Your task to perform on an android device: delete location history Image 0: 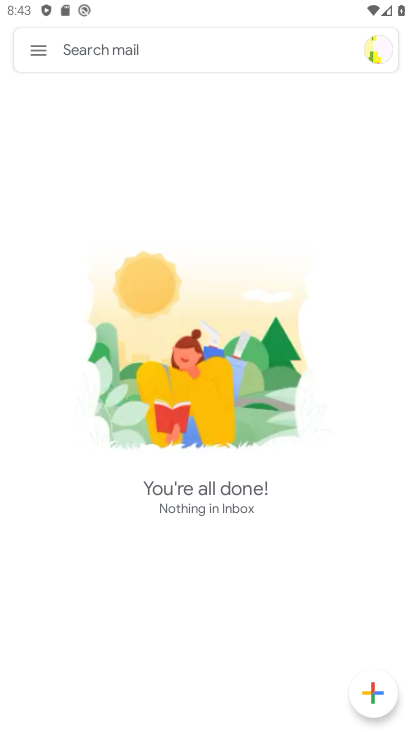
Step 0: press home button
Your task to perform on an android device: delete location history Image 1: 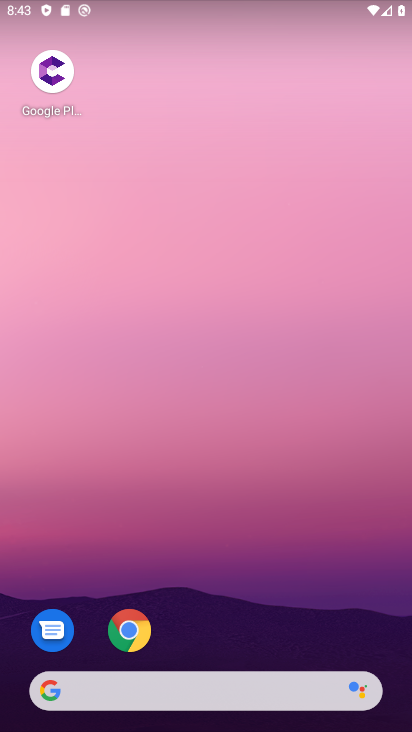
Step 1: drag from (296, 524) to (308, 128)
Your task to perform on an android device: delete location history Image 2: 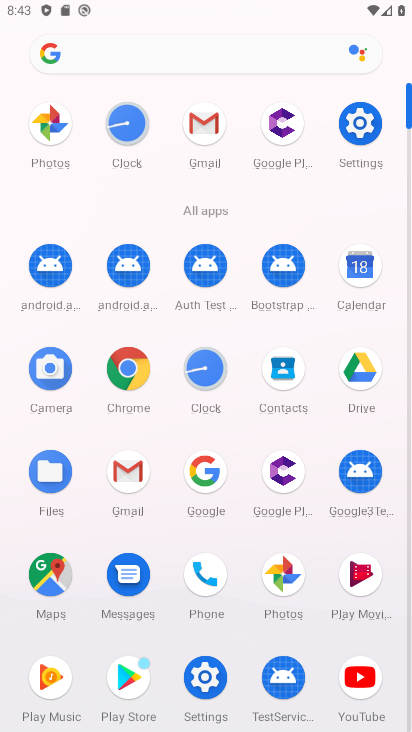
Step 2: click (48, 575)
Your task to perform on an android device: delete location history Image 3: 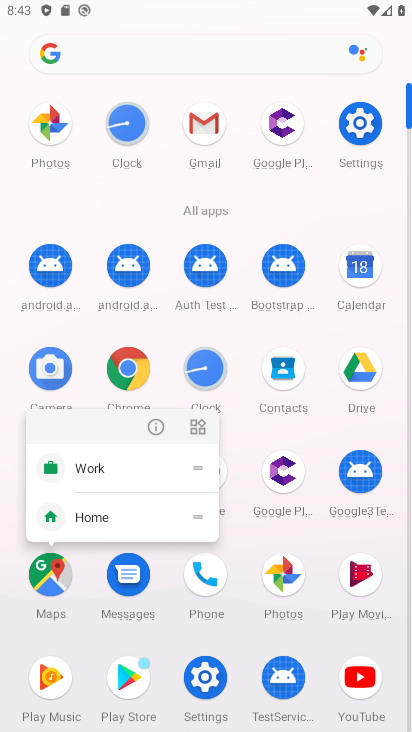
Step 3: click (45, 577)
Your task to perform on an android device: delete location history Image 4: 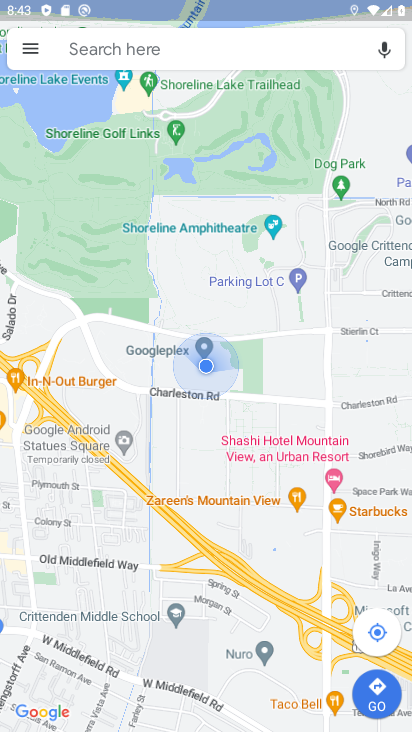
Step 4: click (34, 43)
Your task to perform on an android device: delete location history Image 5: 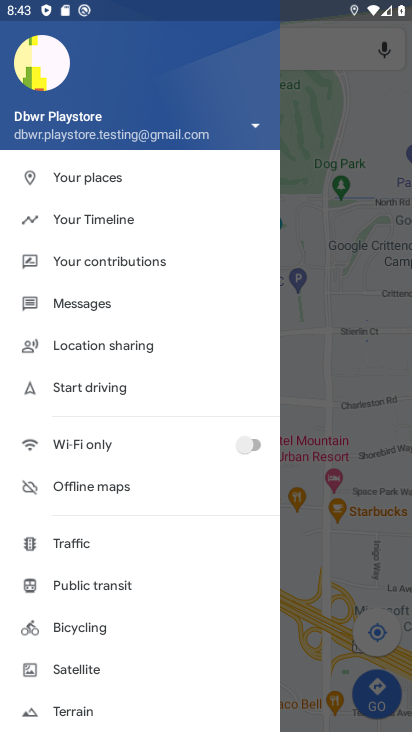
Step 5: drag from (16, 241) to (12, 141)
Your task to perform on an android device: delete location history Image 6: 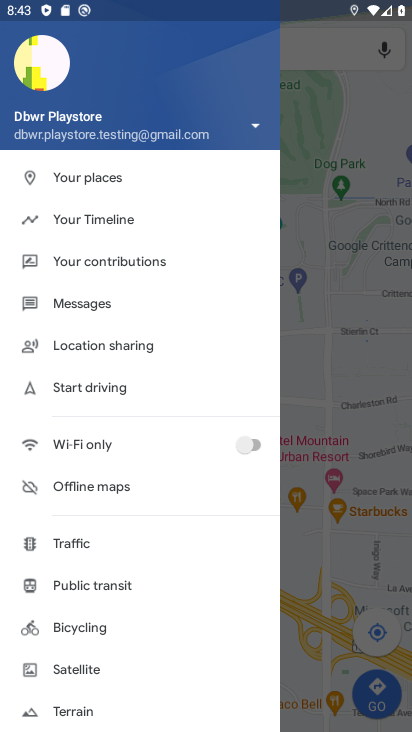
Step 6: drag from (69, 631) to (80, 141)
Your task to perform on an android device: delete location history Image 7: 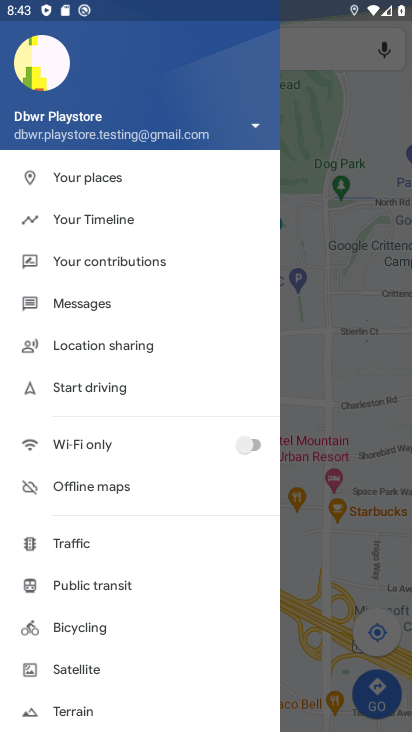
Step 7: drag from (83, 645) to (115, 144)
Your task to perform on an android device: delete location history Image 8: 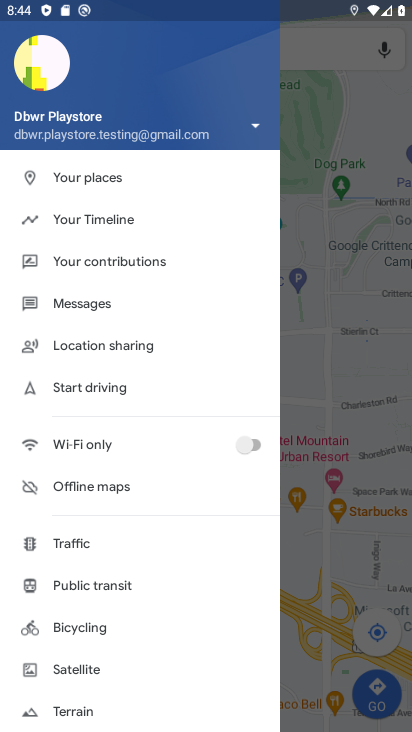
Step 8: drag from (108, 498) to (201, 138)
Your task to perform on an android device: delete location history Image 9: 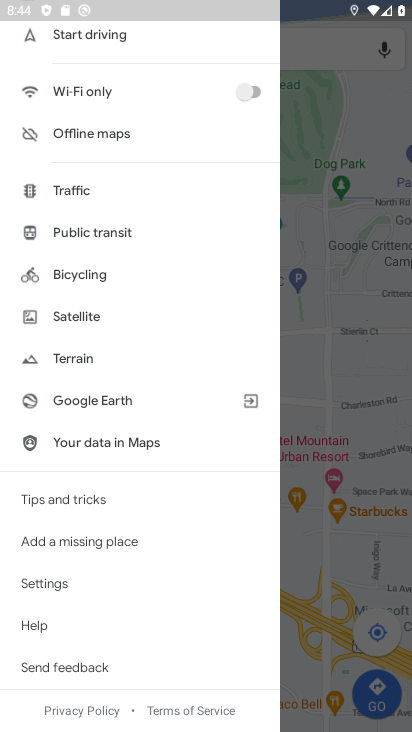
Step 9: click (56, 590)
Your task to perform on an android device: delete location history Image 10: 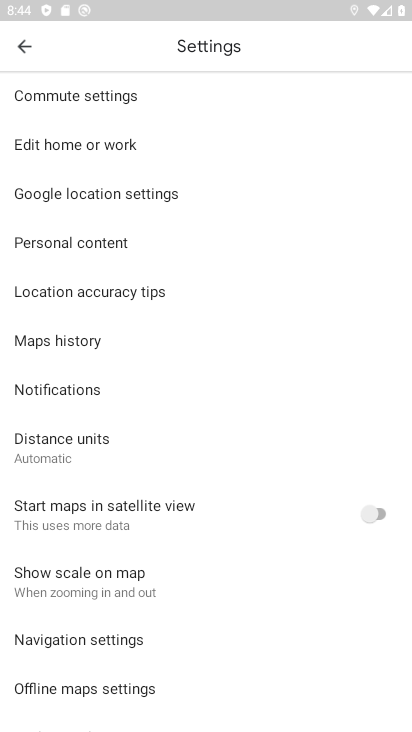
Step 10: click (61, 335)
Your task to perform on an android device: delete location history Image 11: 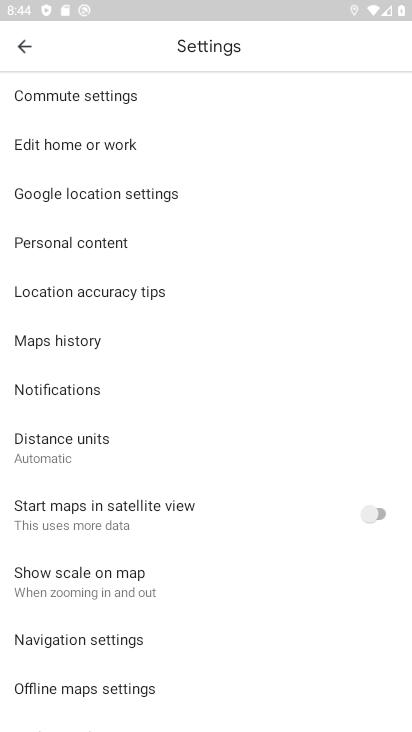
Step 11: click (100, 341)
Your task to perform on an android device: delete location history Image 12: 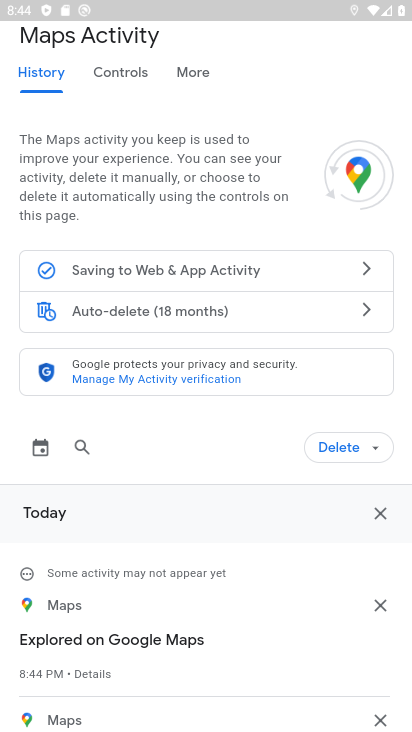
Step 12: click (355, 441)
Your task to perform on an android device: delete location history Image 13: 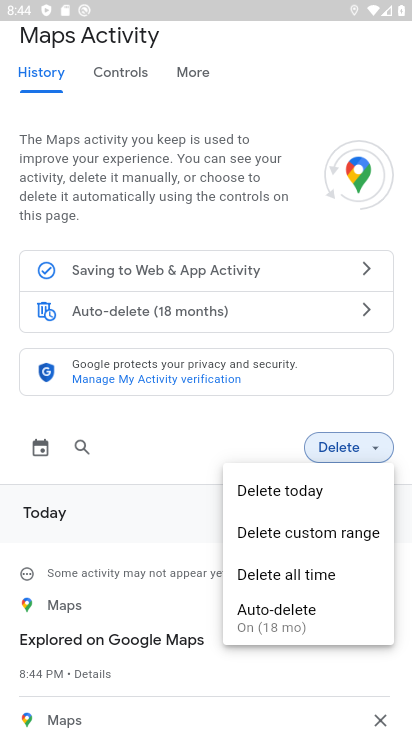
Step 13: click (355, 440)
Your task to perform on an android device: delete location history Image 14: 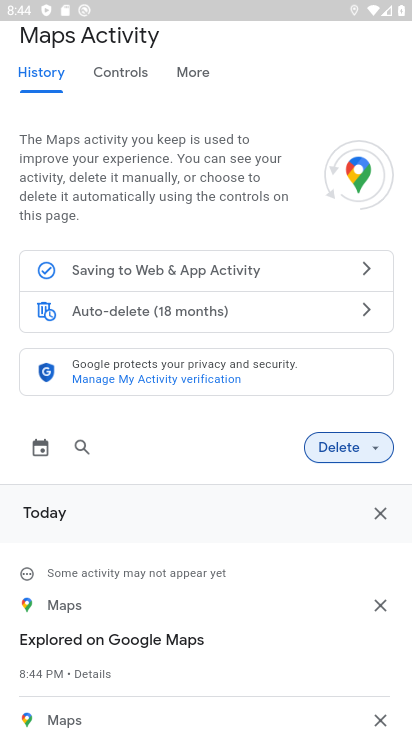
Step 14: click (355, 447)
Your task to perform on an android device: delete location history Image 15: 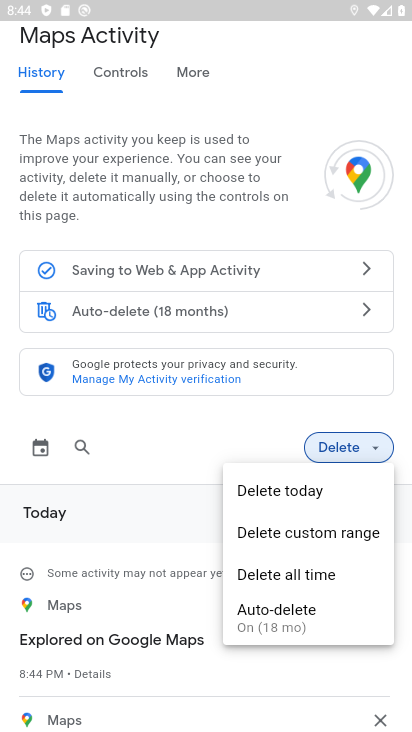
Step 15: click (298, 574)
Your task to perform on an android device: delete location history Image 16: 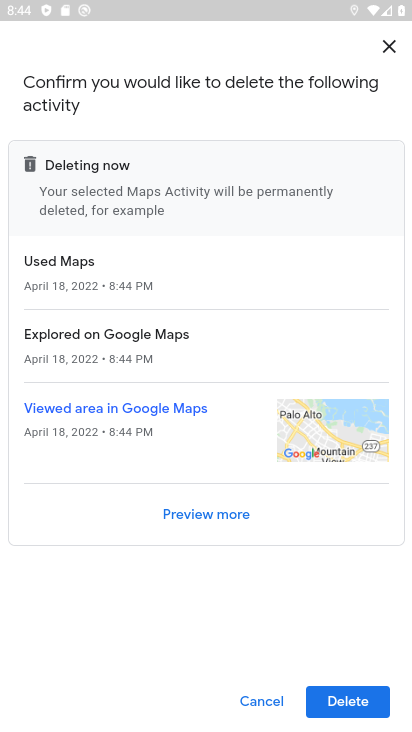
Step 16: click (365, 704)
Your task to perform on an android device: delete location history Image 17: 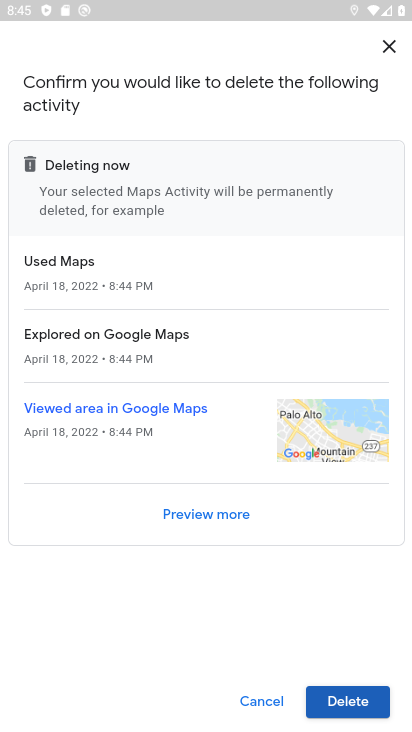
Step 17: click (377, 727)
Your task to perform on an android device: delete location history Image 18: 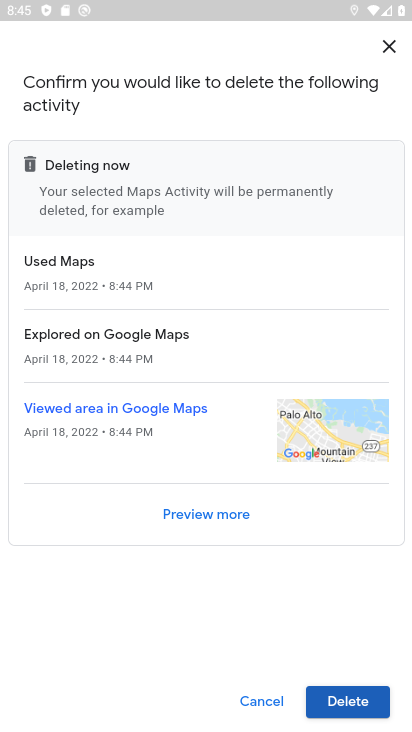
Step 18: click (367, 704)
Your task to perform on an android device: delete location history Image 19: 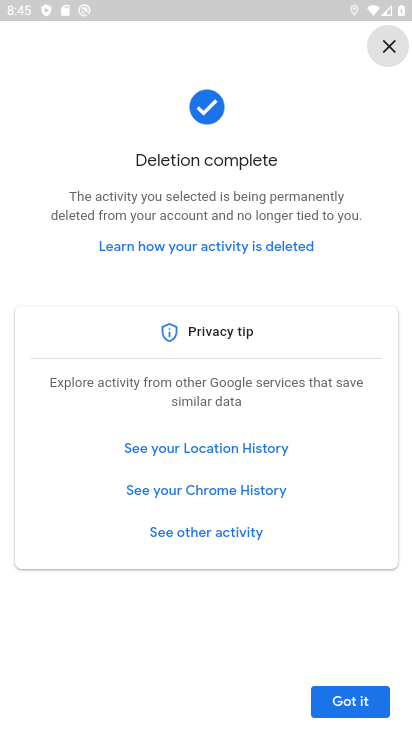
Step 19: task complete